Your task to perform on an android device: Add "logitech g pro" to the cart on newegg Image 0: 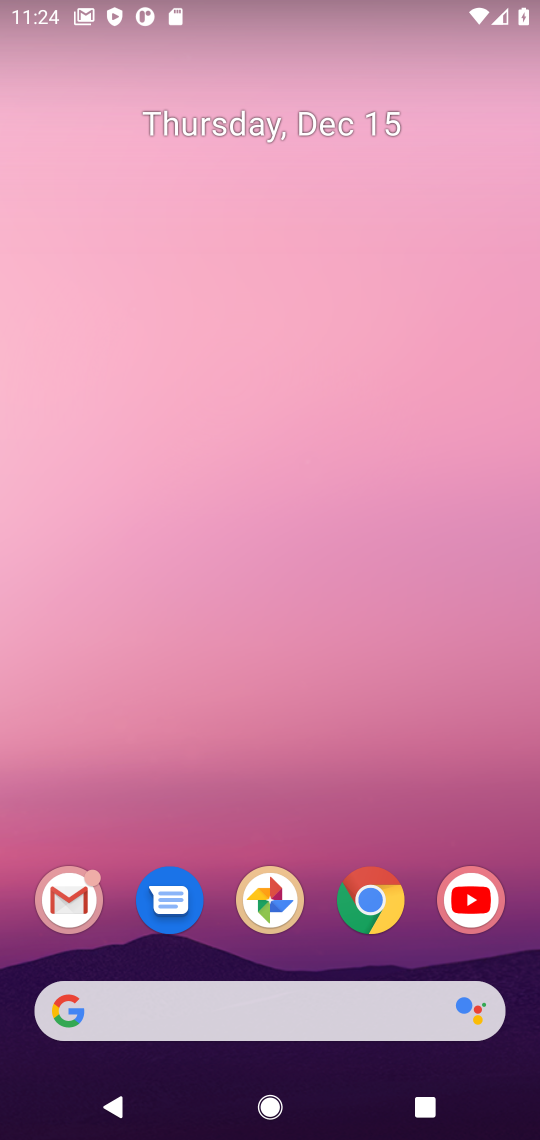
Step 0: click (375, 907)
Your task to perform on an android device: Add "logitech g pro" to the cart on newegg Image 1: 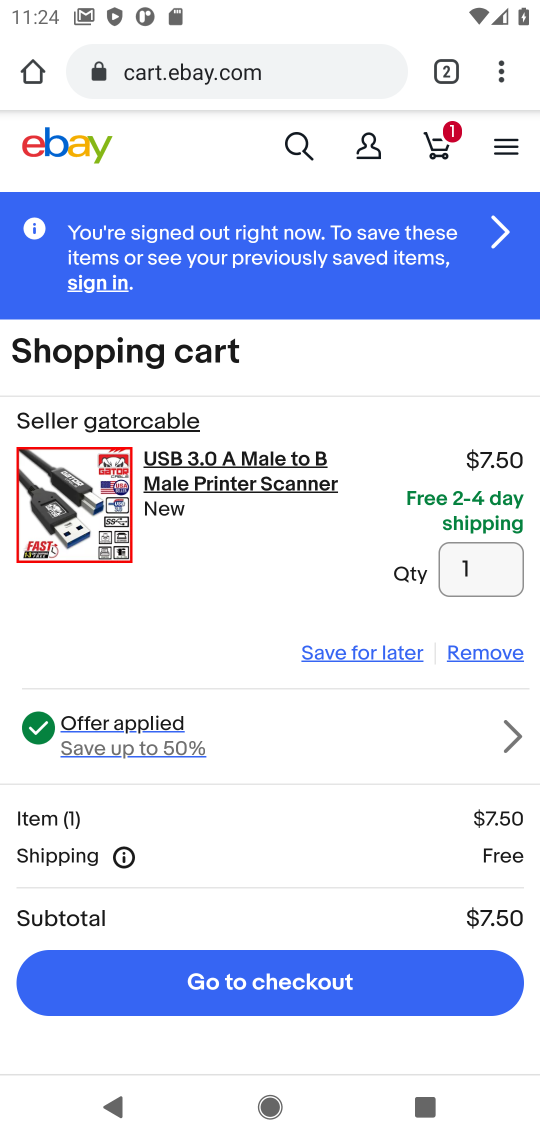
Step 1: click (340, 66)
Your task to perform on an android device: Add "logitech g pro" to the cart on newegg Image 2: 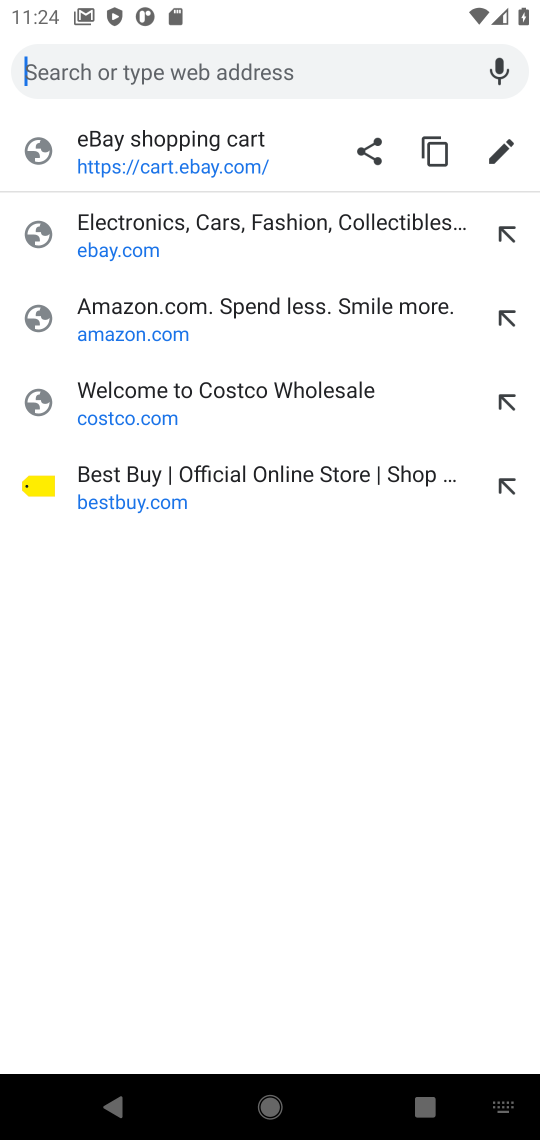
Step 2: type "newegg"
Your task to perform on an android device: Add "logitech g pro" to the cart on newegg Image 3: 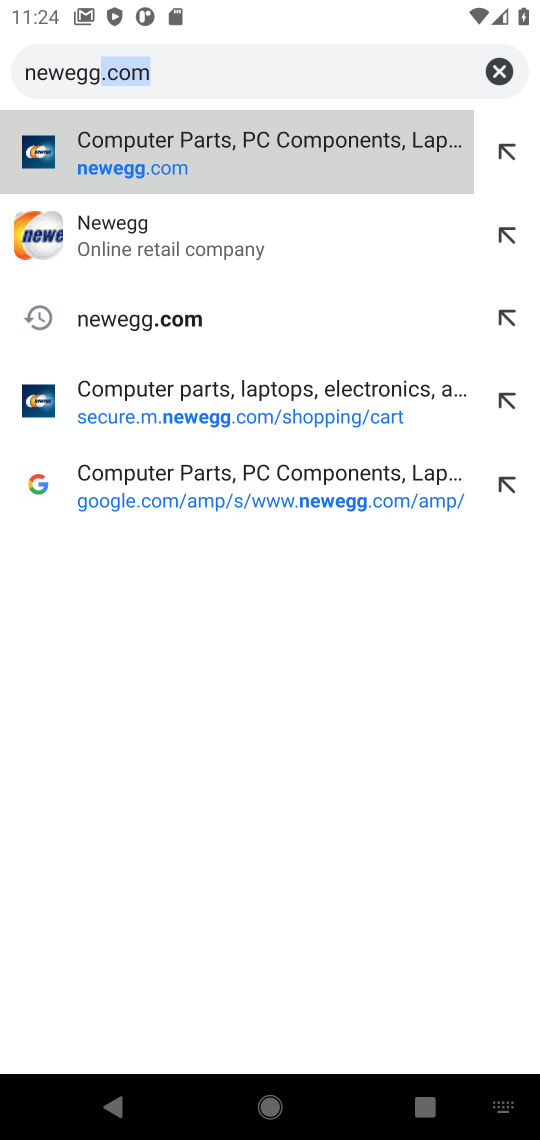
Step 3: click (418, 71)
Your task to perform on an android device: Add "logitech g pro" to the cart on newegg Image 4: 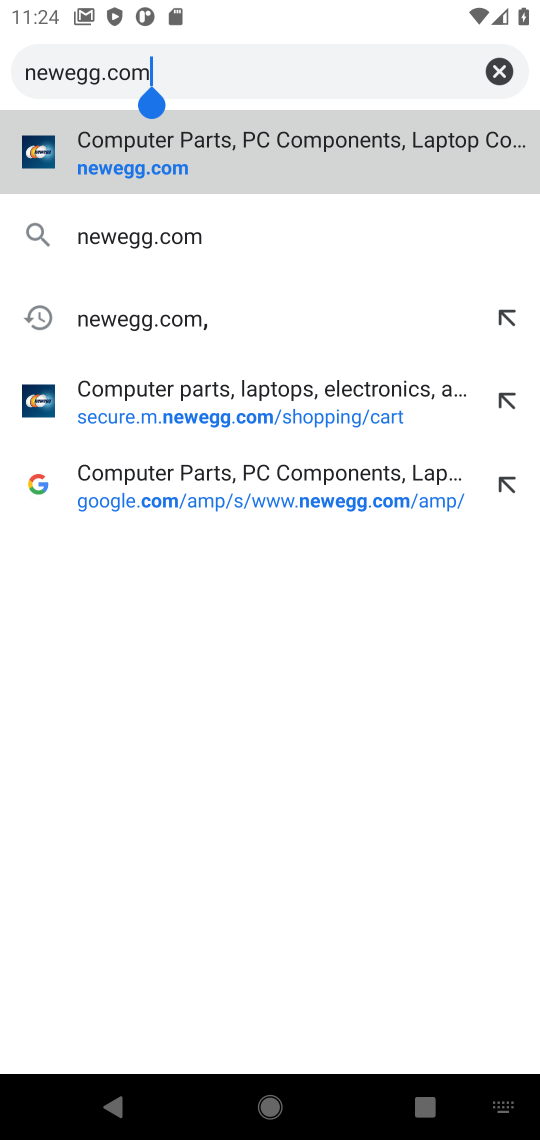
Step 4: click (180, 232)
Your task to perform on an android device: Add "logitech g pro" to the cart on newegg Image 5: 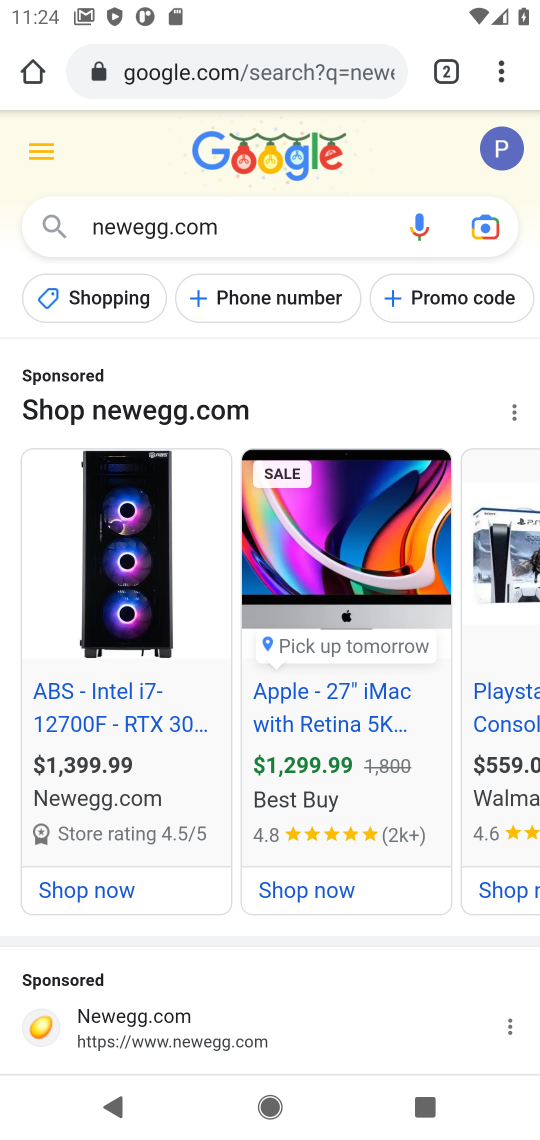
Step 5: click (179, 1037)
Your task to perform on an android device: Add "logitech g pro" to the cart on newegg Image 6: 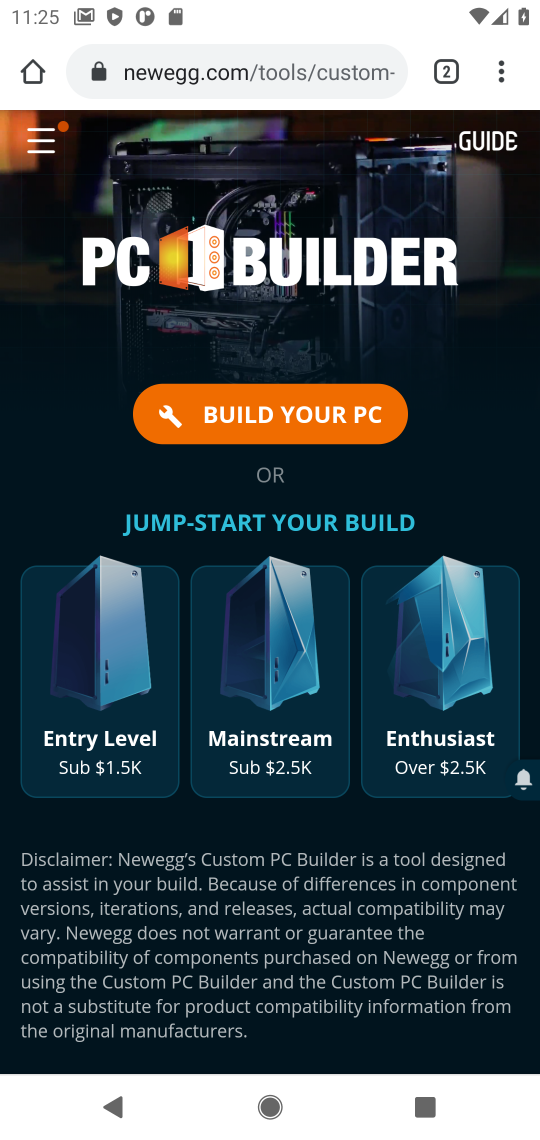
Step 6: press back button
Your task to perform on an android device: Add "logitech g pro" to the cart on newegg Image 7: 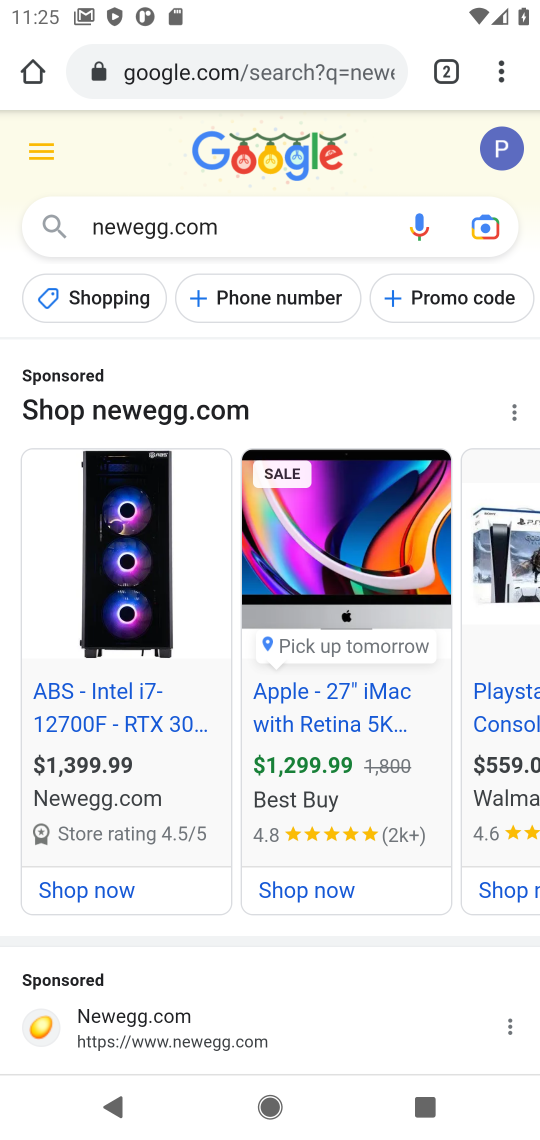
Step 7: drag from (420, 1005) to (390, 612)
Your task to perform on an android device: Add "logitech g pro" to the cart on newegg Image 8: 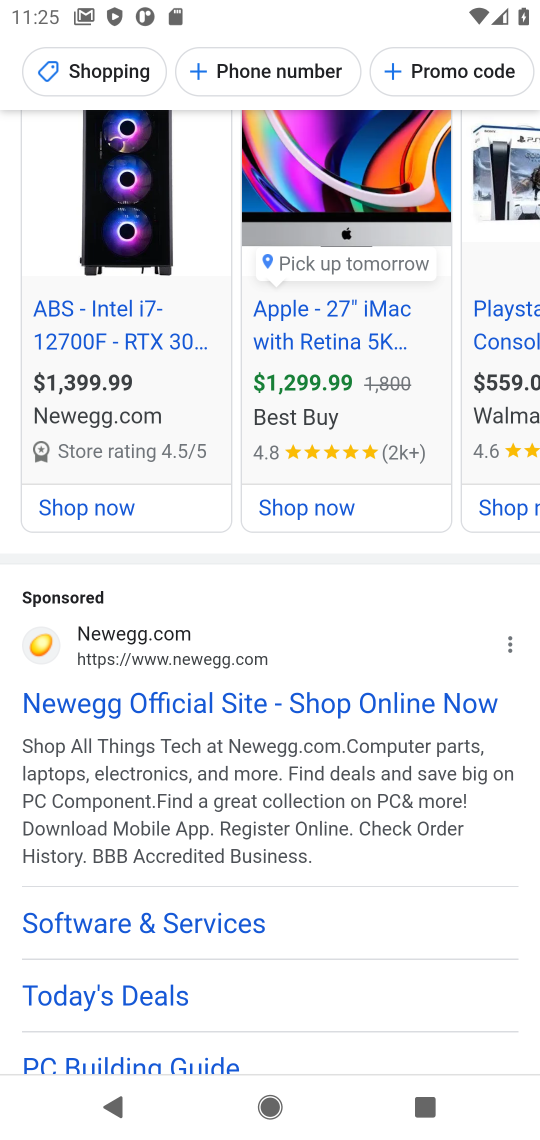
Step 8: click (229, 654)
Your task to perform on an android device: Add "logitech g pro" to the cart on newegg Image 9: 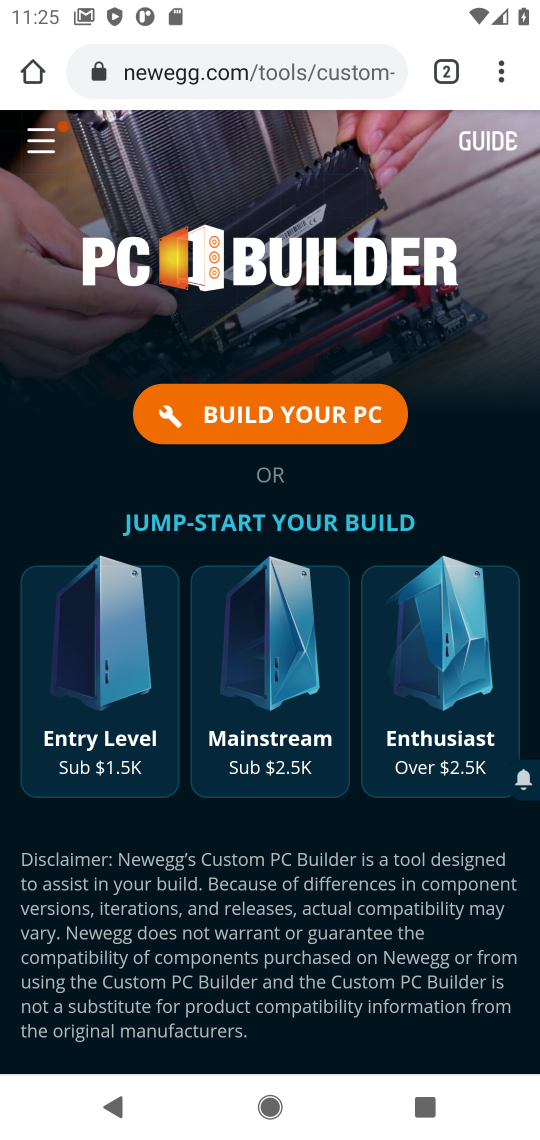
Step 9: press back button
Your task to perform on an android device: Add "logitech g pro" to the cart on newegg Image 10: 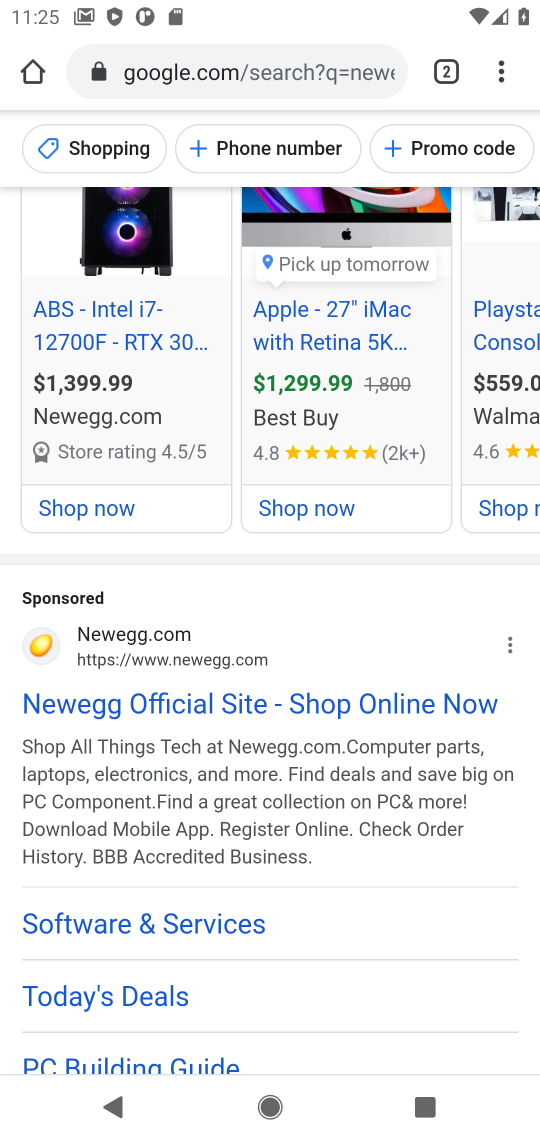
Step 10: click (186, 662)
Your task to perform on an android device: Add "logitech g pro" to the cart on newegg Image 11: 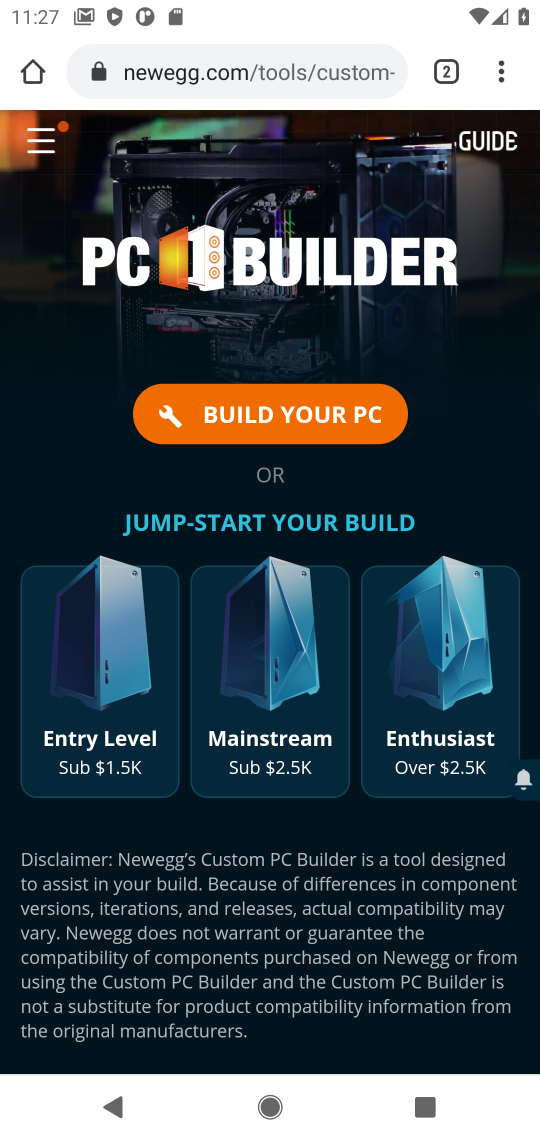
Step 11: press back button
Your task to perform on an android device: Add "logitech g pro" to the cart on newegg Image 12: 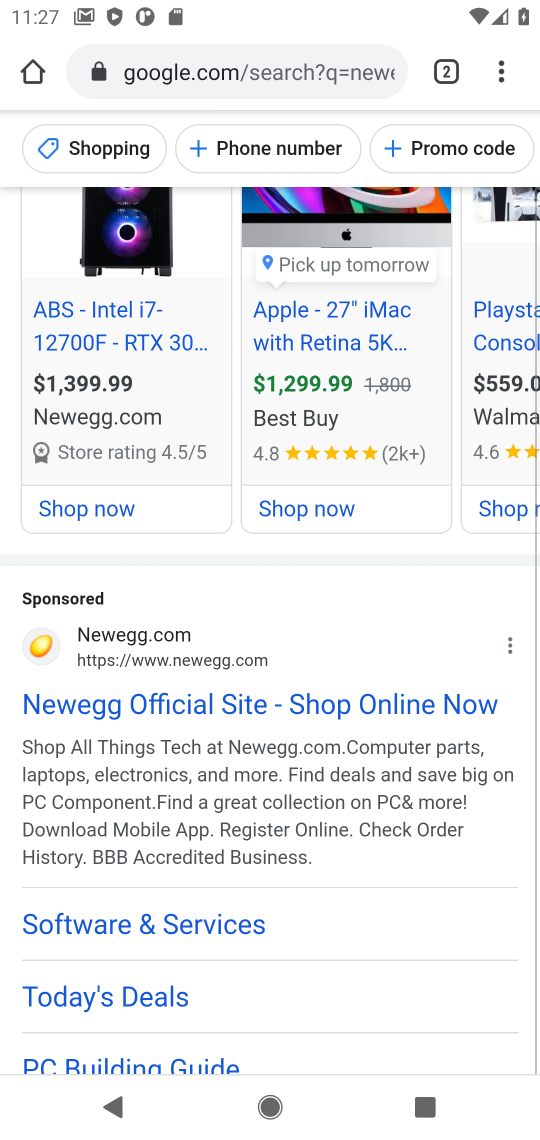
Step 12: drag from (354, 831) to (456, 337)
Your task to perform on an android device: Add "logitech g pro" to the cart on newegg Image 13: 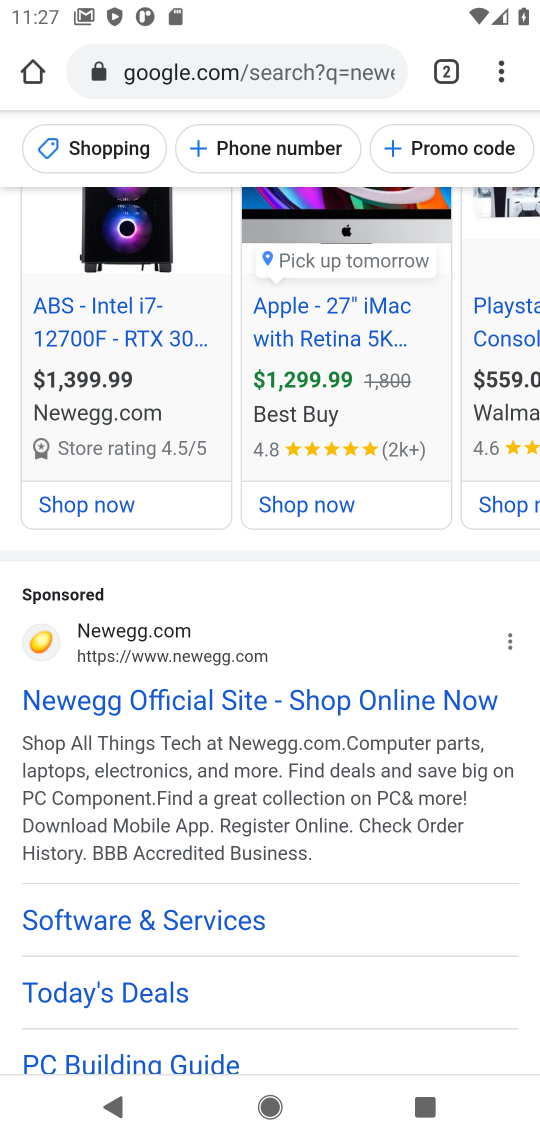
Step 13: drag from (200, 753) to (272, 254)
Your task to perform on an android device: Add "logitech g pro" to the cart on newegg Image 14: 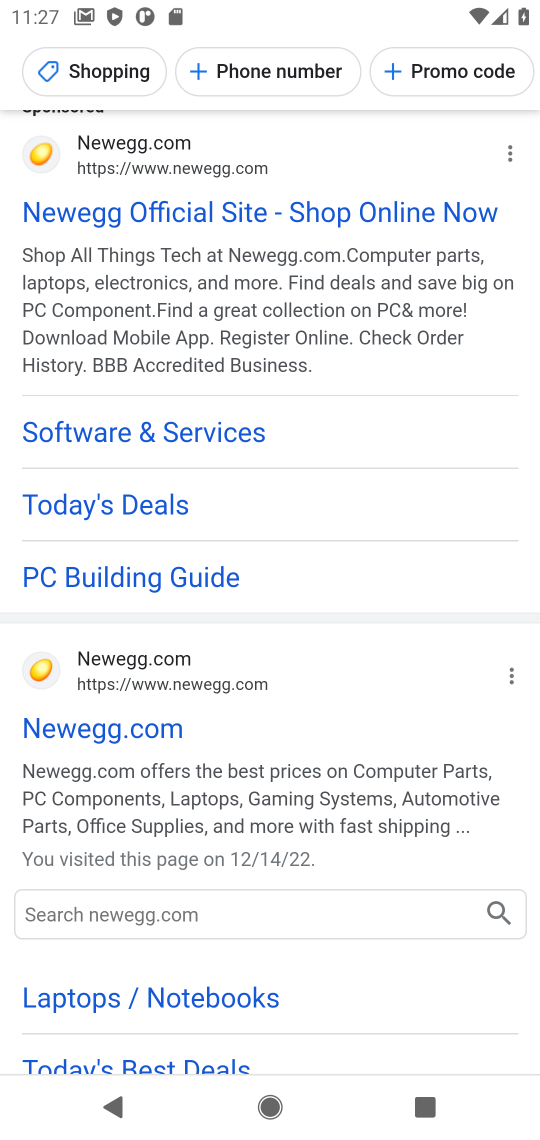
Step 14: click (167, 676)
Your task to perform on an android device: Add "logitech g pro" to the cart on newegg Image 15: 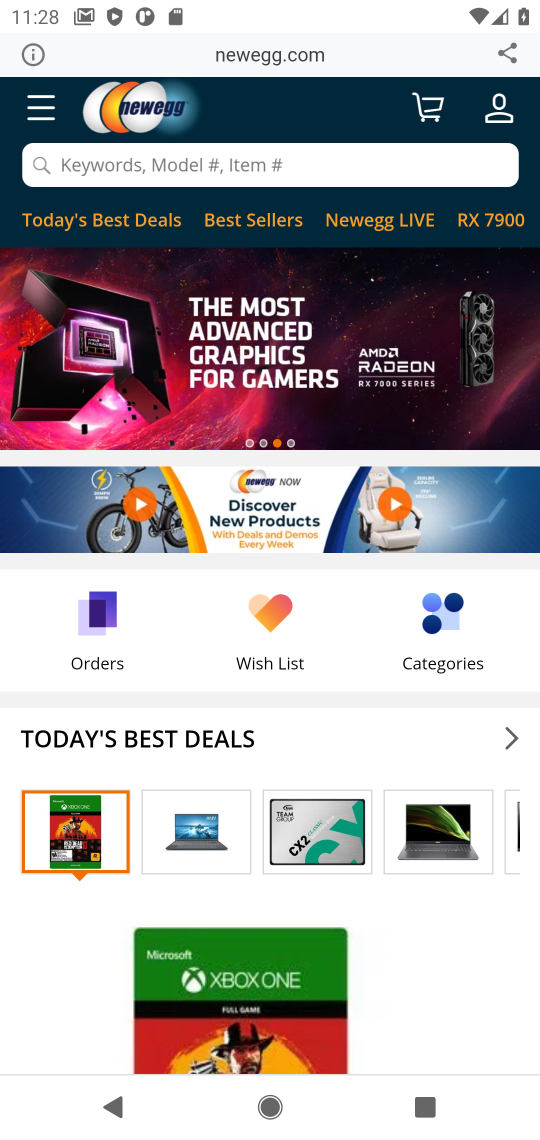
Step 15: click (324, 179)
Your task to perform on an android device: Add "logitech g pro" to the cart on newegg Image 16: 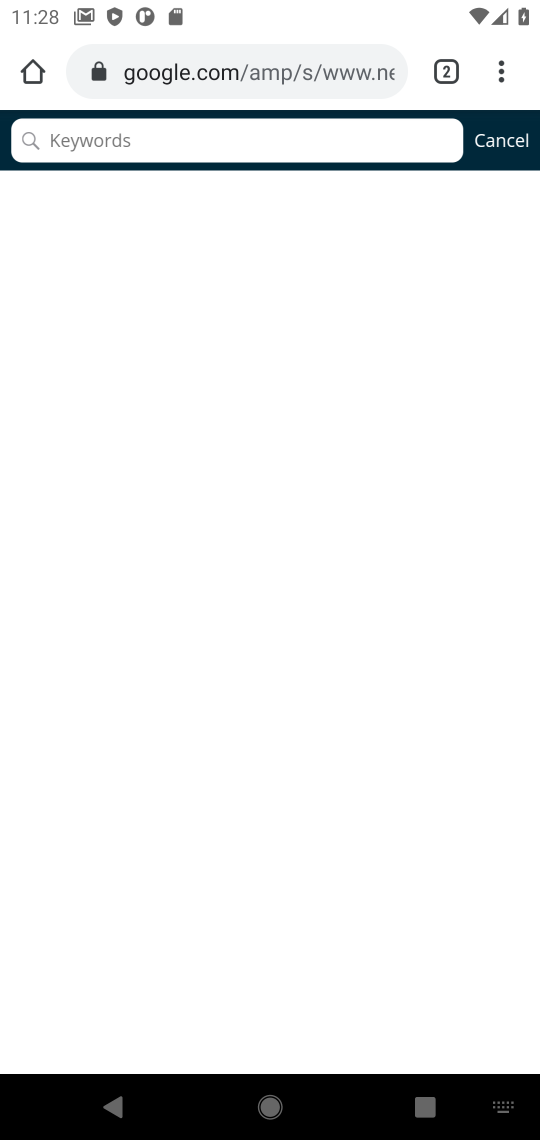
Step 16: press enter
Your task to perform on an android device: Add "logitech g pro" to the cart on newegg Image 17: 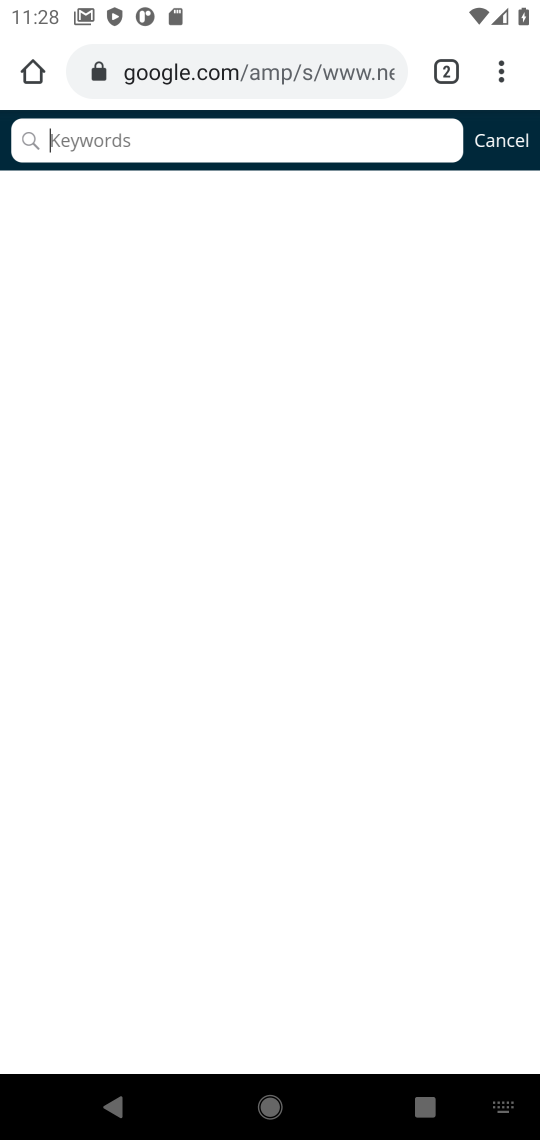
Step 17: type "logitech g pro"
Your task to perform on an android device: Add "logitech g pro" to the cart on newegg Image 18: 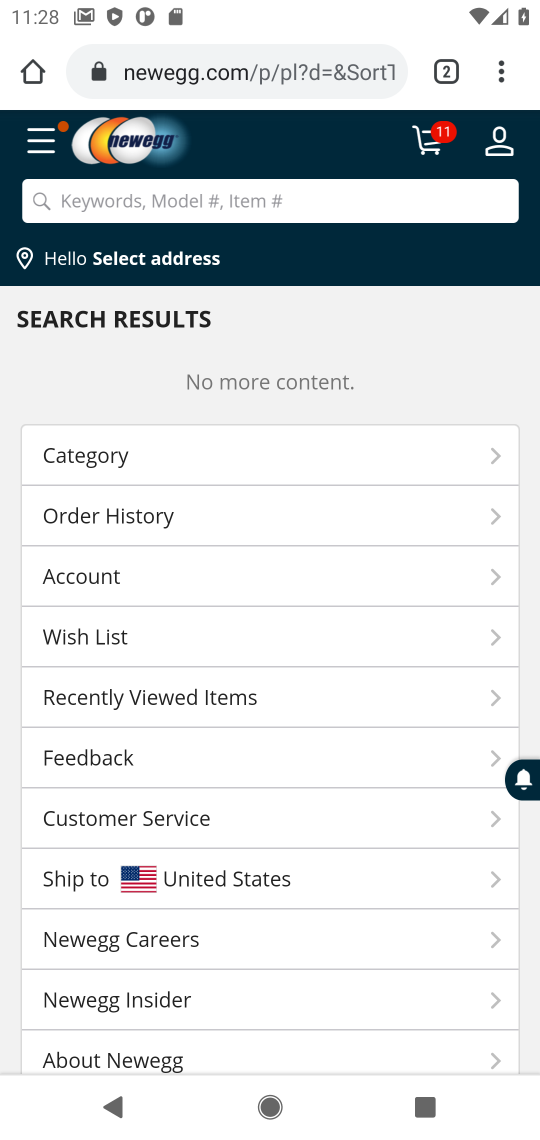
Step 18: click (415, 200)
Your task to perform on an android device: Add "logitech g pro" to the cart on newegg Image 19: 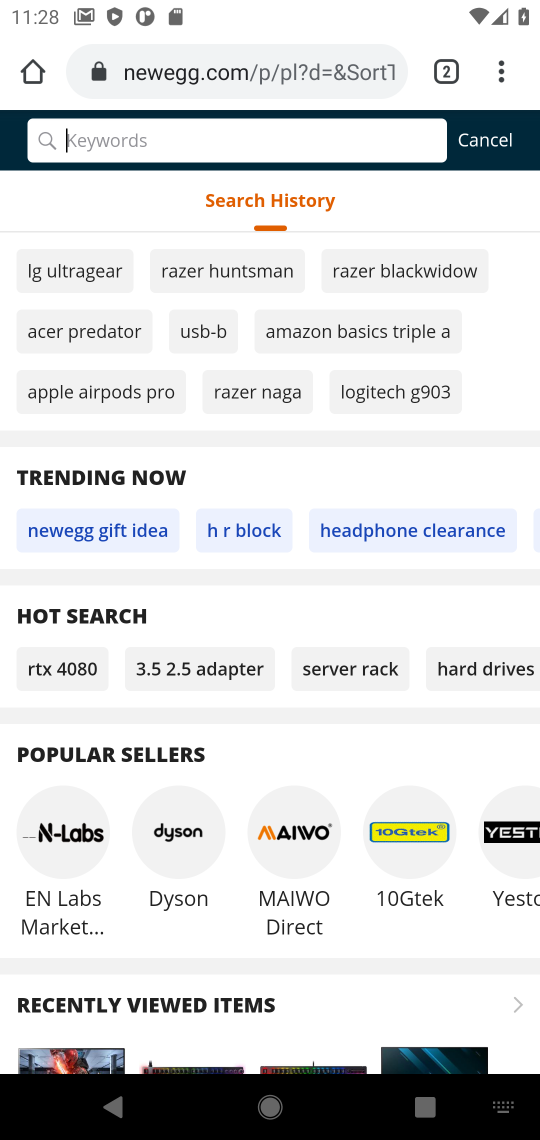
Step 19: press enter
Your task to perform on an android device: Add "logitech g pro" to the cart on newegg Image 20: 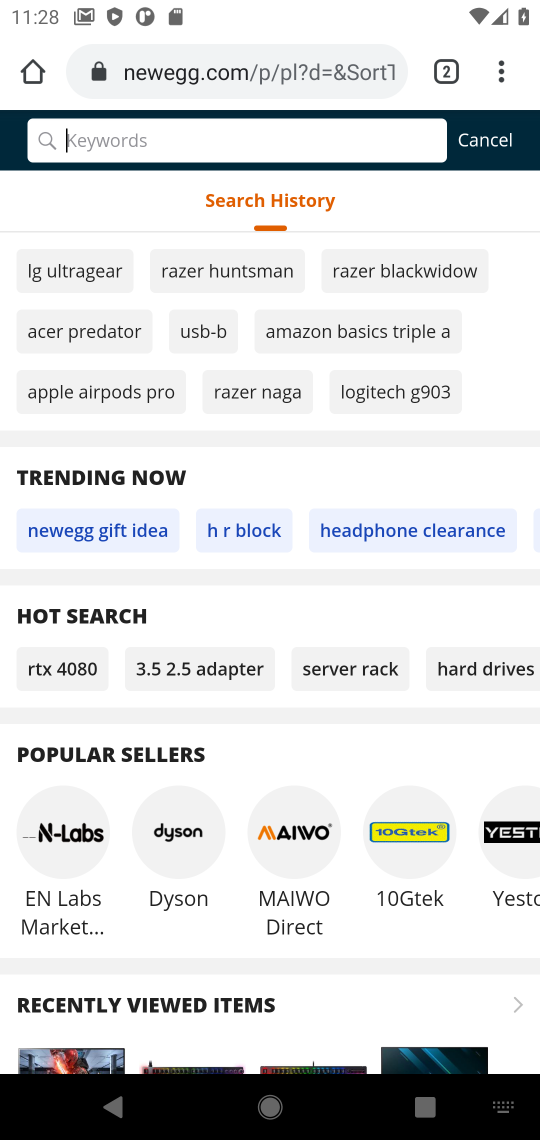
Step 20: type "logitech g pro"
Your task to perform on an android device: Add "logitech g pro" to the cart on newegg Image 21: 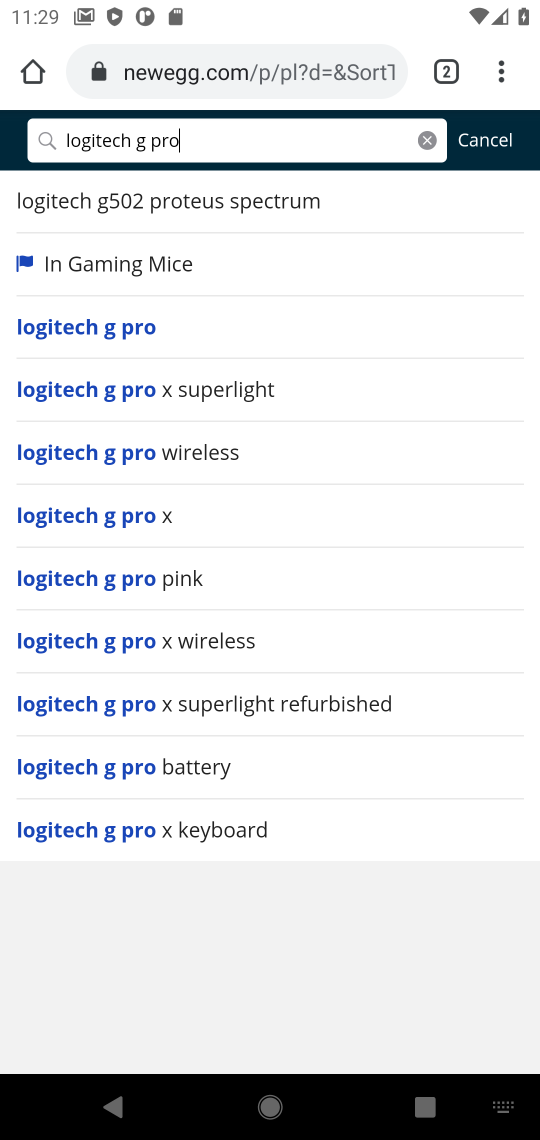
Step 21: click (131, 325)
Your task to perform on an android device: Add "logitech g pro" to the cart on newegg Image 22: 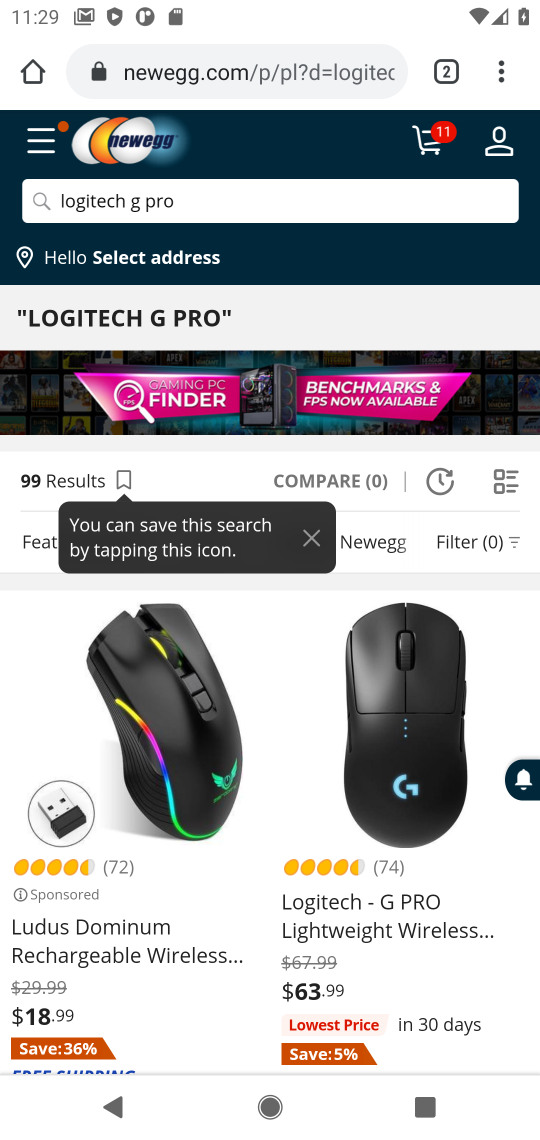
Step 22: click (391, 762)
Your task to perform on an android device: Add "logitech g pro" to the cart on newegg Image 23: 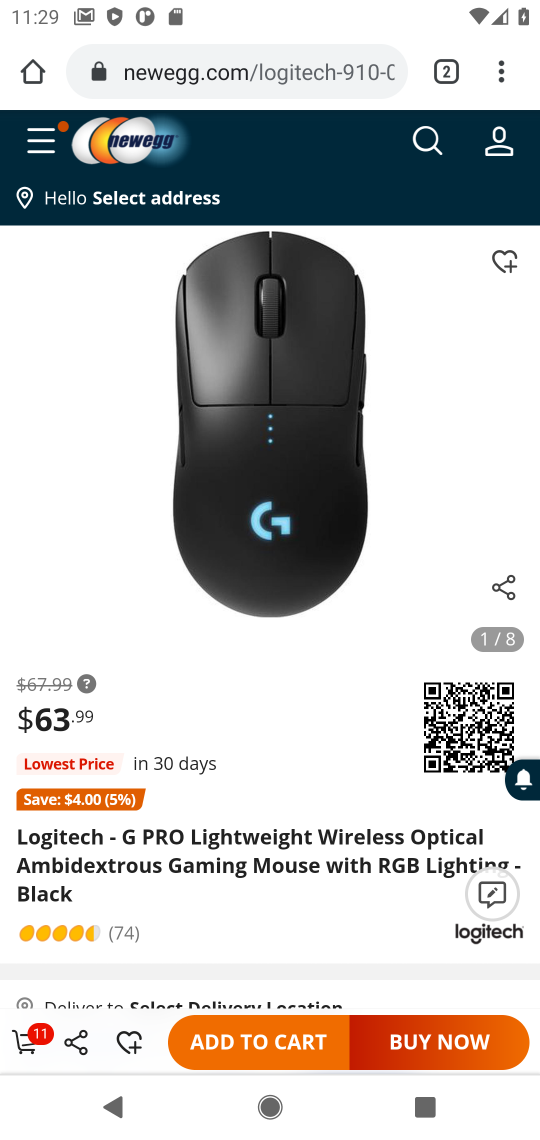
Step 23: click (270, 1031)
Your task to perform on an android device: Add "logitech g pro" to the cart on newegg Image 24: 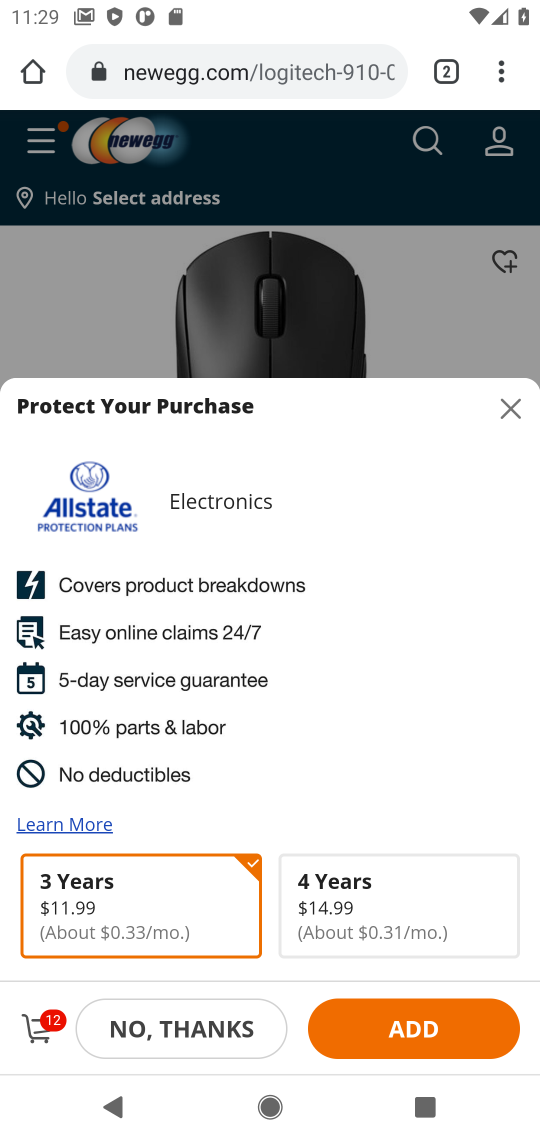
Step 24: task complete